Your task to perform on an android device: stop showing notifications on the lock screen Image 0: 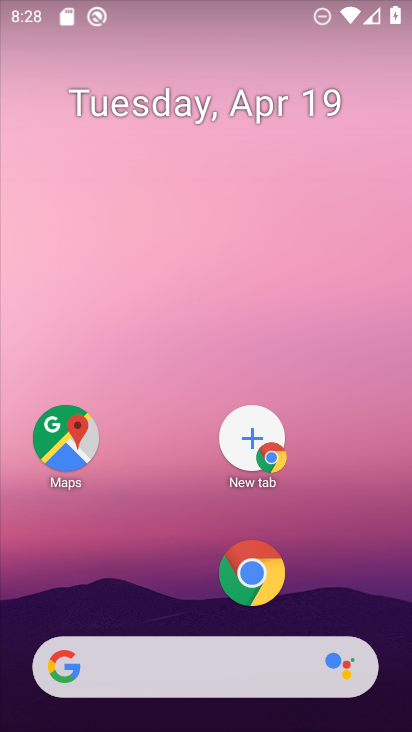
Step 0: drag from (157, 619) to (139, 41)
Your task to perform on an android device: stop showing notifications on the lock screen Image 1: 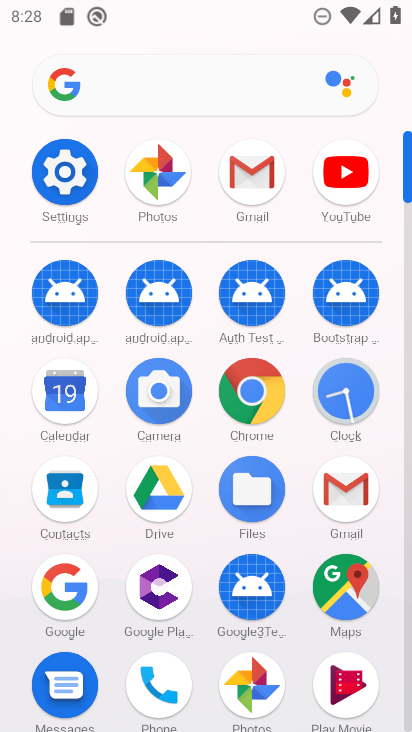
Step 1: click (66, 163)
Your task to perform on an android device: stop showing notifications on the lock screen Image 2: 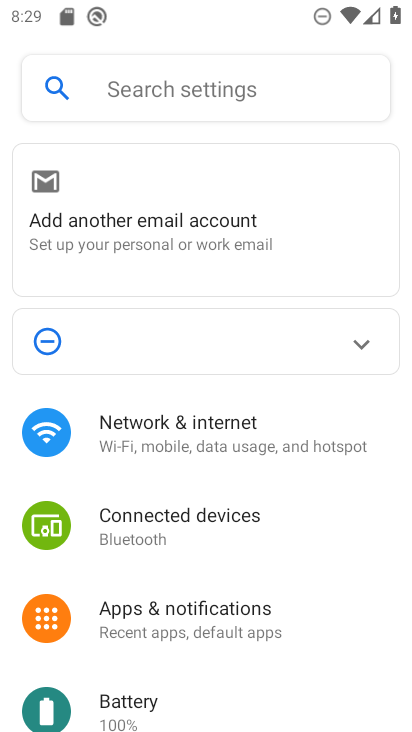
Step 2: click (212, 661)
Your task to perform on an android device: stop showing notifications on the lock screen Image 3: 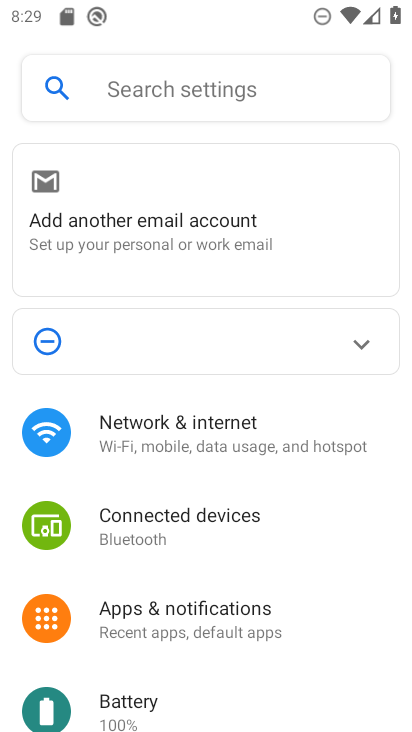
Step 3: click (233, 627)
Your task to perform on an android device: stop showing notifications on the lock screen Image 4: 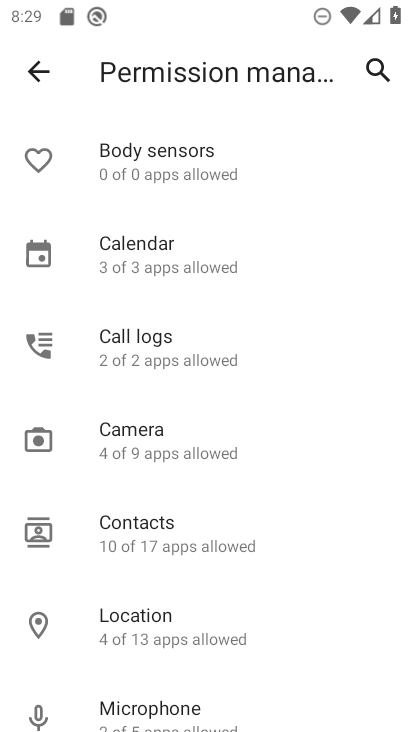
Step 4: click (35, 78)
Your task to perform on an android device: stop showing notifications on the lock screen Image 5: 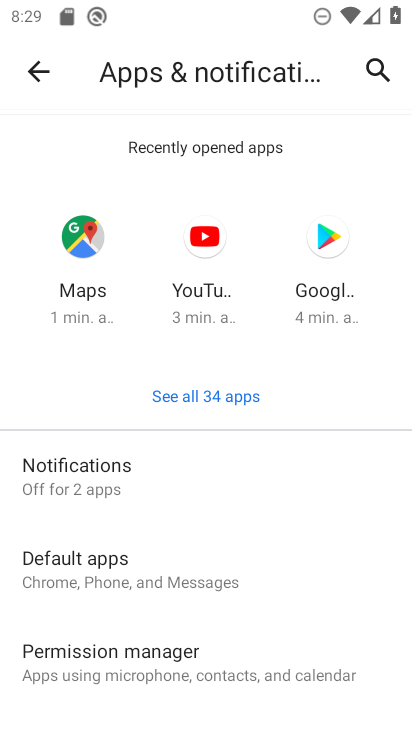
Step 5: click (103, 488)
Your task to perform on an android device: stop showing notifications on the lock screen Image 6: 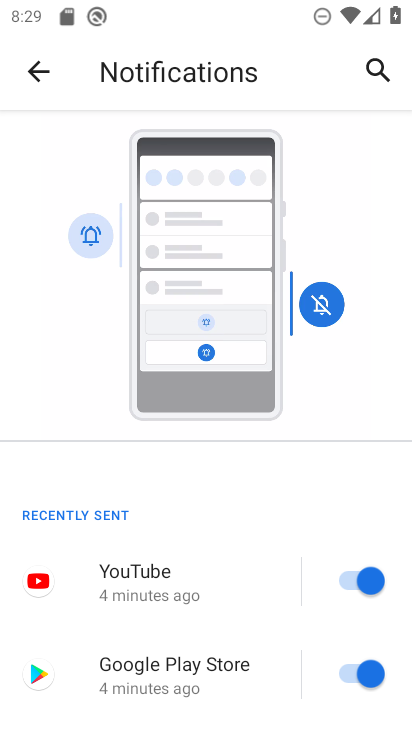
Step 6: drag from (221, 614) to (249, 102)
Your task to perform on an android device: stop showing notifications on the lock screen Image 7: 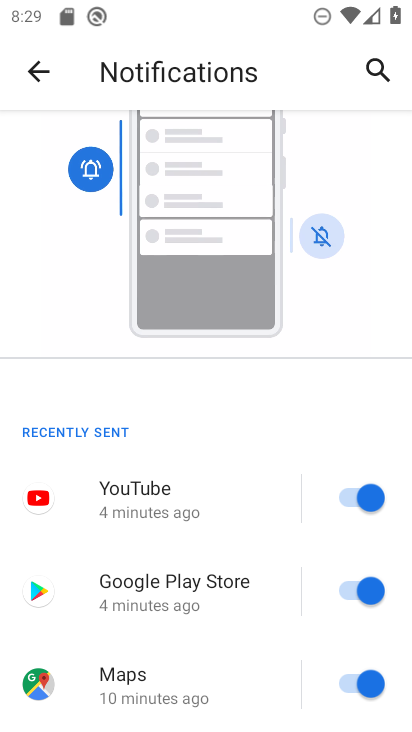
Step 7: drag from (142, 622) to (216, 126)
Your task to perform on an android device: stop showing notifications on the lock screen Image 8: 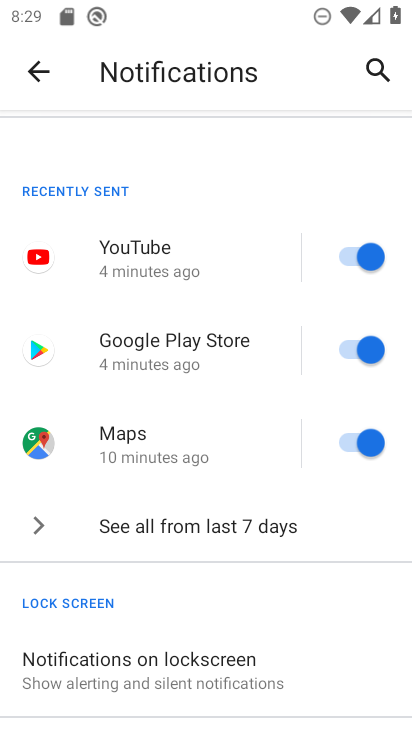
Step 8: click (71, 687)
Your task to perform on an android device: stop showing notifications on the lock screen Image 9: 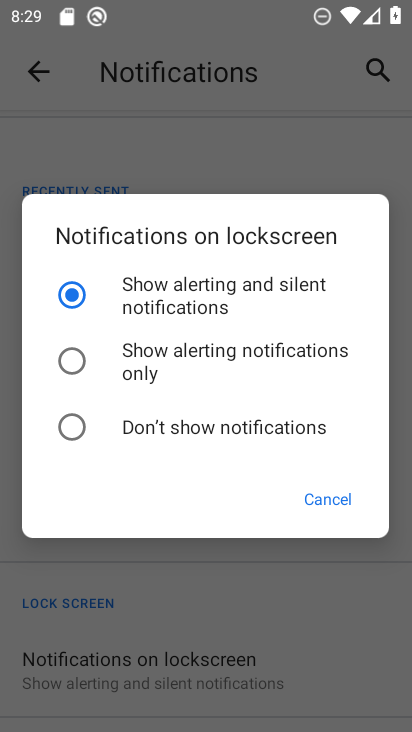
Step 9: click (264, 419)
Your task to perform on an android device: stop showing notifications on the lock screen Image 10: 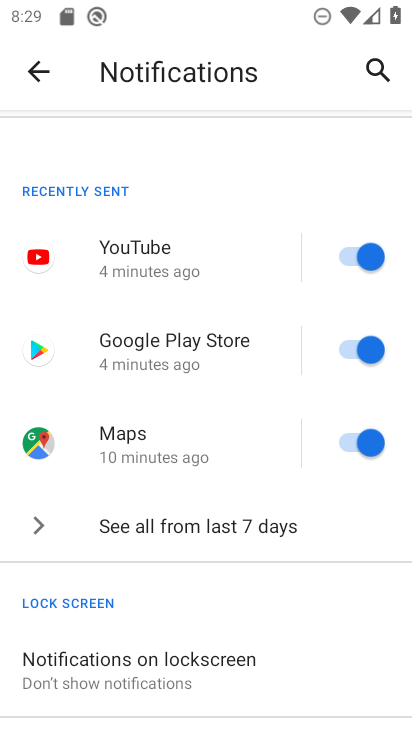
Step 10: task complete